Your task to perform on an android device: turn off javascript in the chrome app Image 0: 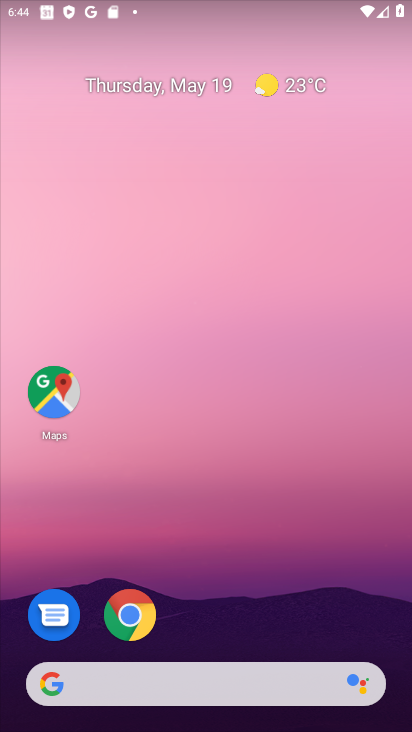
Step 0: drag from (387, 610) to (237, 73)
Your task to perform on an android device: turn off javascript in the chrome app Image 1: 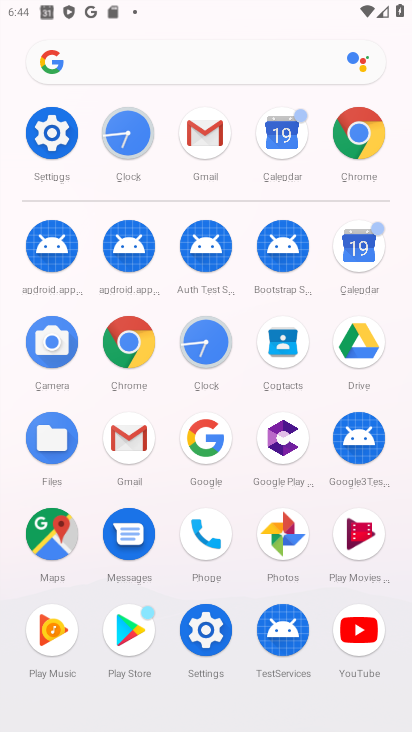
Step 1: click (351, 149)
Your task to perform on an android device: turn off javascript in the chrome app Image 2: 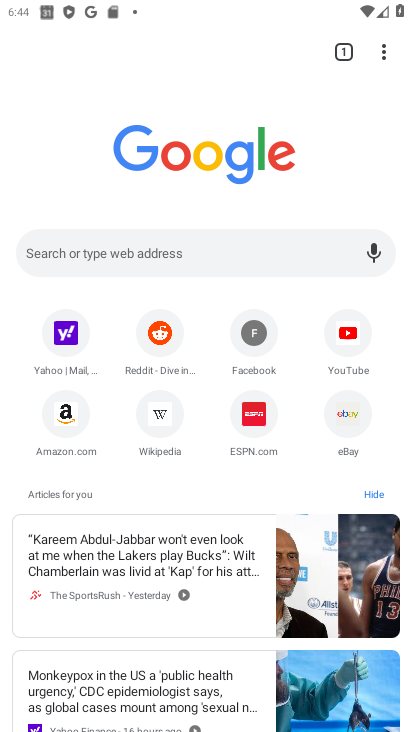
Step 2: click (385, 45)
Your task to perform on an android device: turn off javascript in the chrome app Image 3: 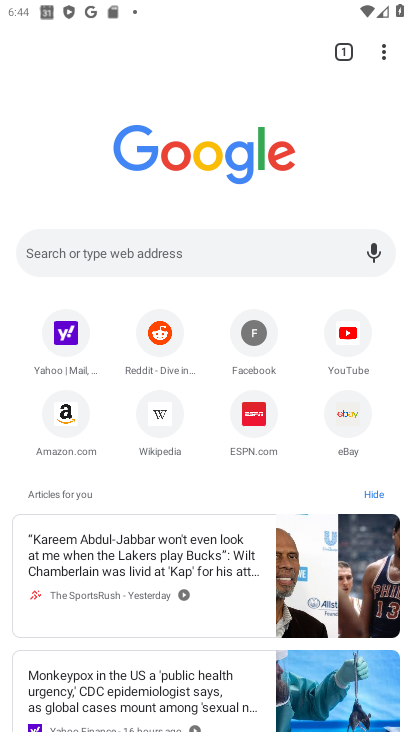
Step 3: click (385, 45)
Your task to perform on an android device: turn off javascript in the chrome app Image 4: 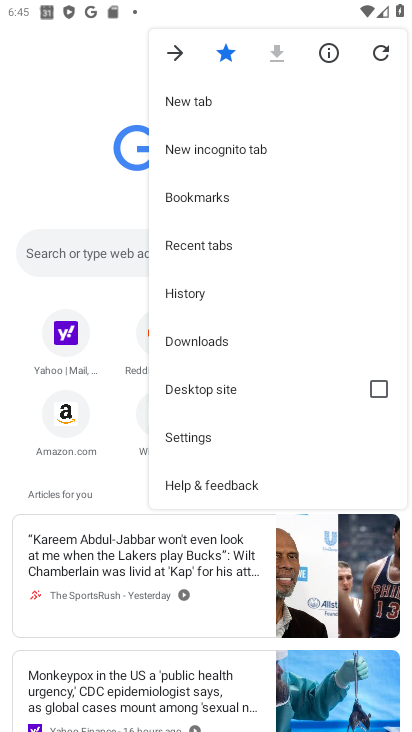
Step 4: click (246, 432)
Your task to perform on an android device: turn off javascript in the chrome app Image 5: 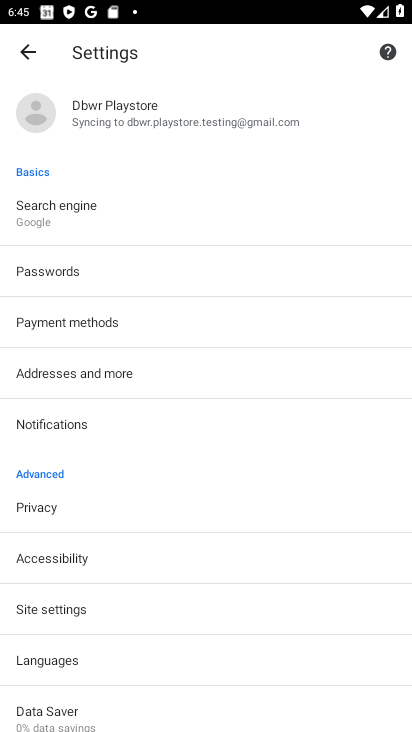
Step 5: click (105, 611)
Your task to perform on an android device: turn off javascript in the chrome app Image 6: 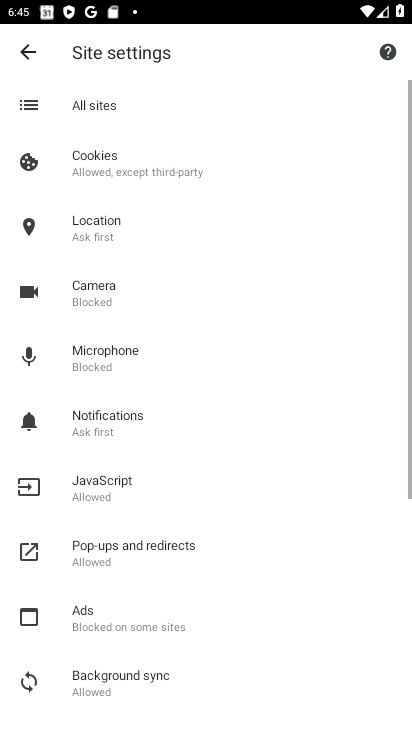
Step 6: click (137, 504)
Your task to perform on an android device: turn off javascript in the chrome app Image 7: 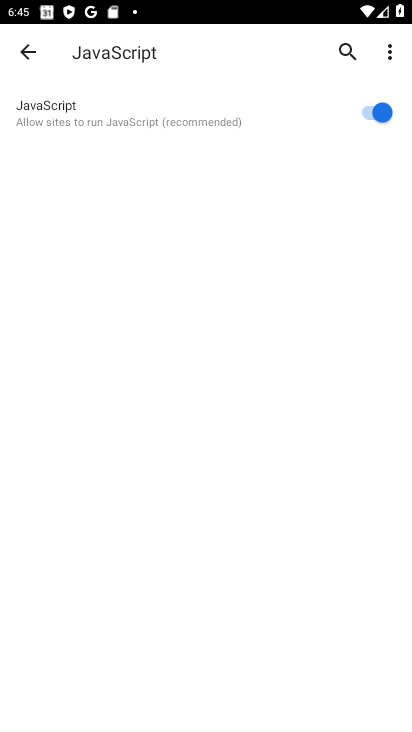
Step 7: click (355, 118)
Your task to perform on an android device: turn off javascript in the chrome app Image 8: 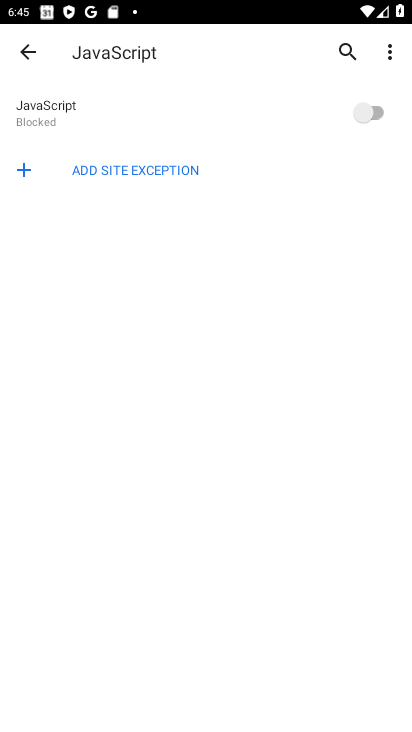
Step 8: task complete